Your task to perform on an android device: change the clock display to digital Image 0: 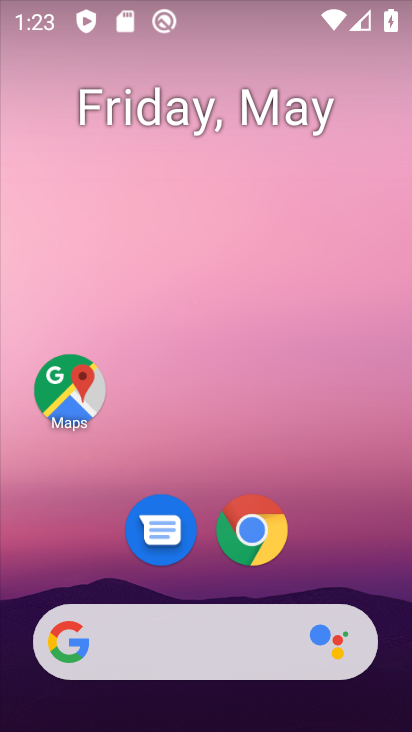
Step 0: drag from (318, 557) to (188, 5)
Your task to perform on an android device: change the clock display to digital Image 1: 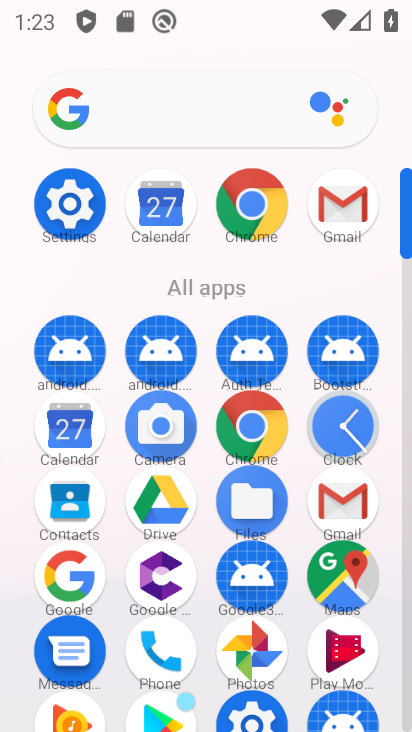
Step 1: click (336, 425)
Your task to perform on an android device: change the clock display to digital Image 2: 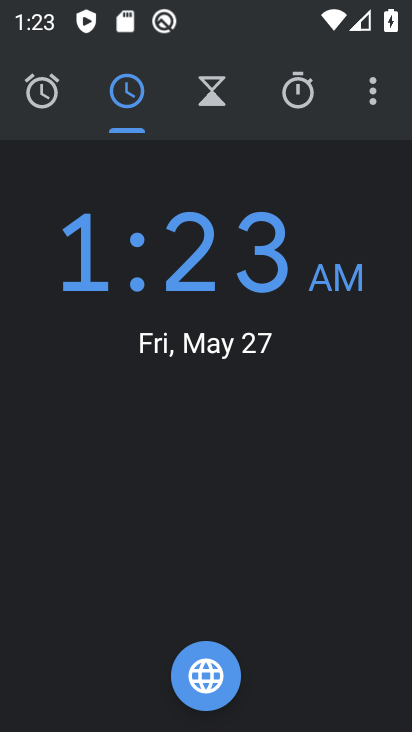
Step 2: click (361, 94)
Your task to perform on an android device: change the clock display to digital Image 3: 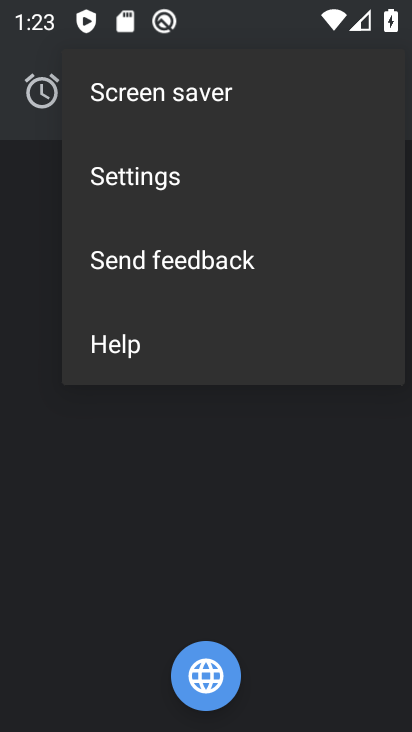
Step 3: click (196, 188)
Your task to perform on an android device: change the clock display to digital Image 4: 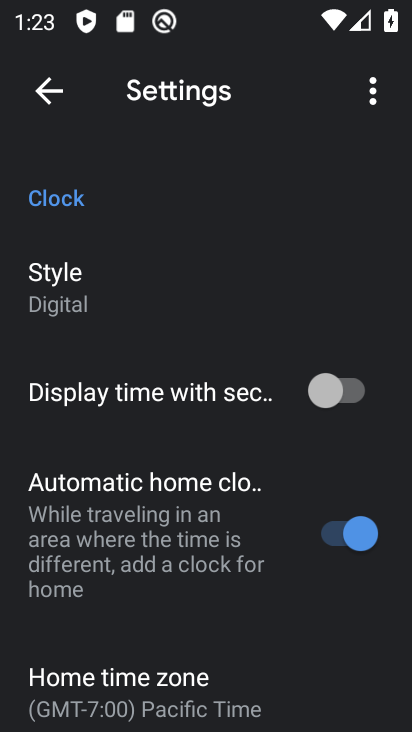
Step 4: click (134, 293)
Your task to perform on an android device: change the clock display to digital Image 5: 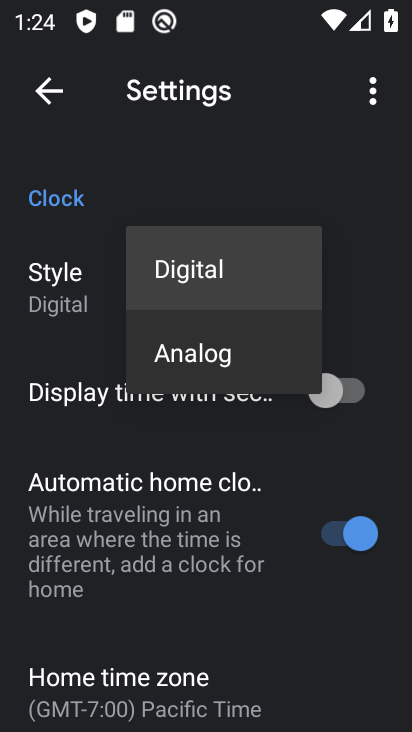
Step 5: click (204, 266)
Your task to perform on an android device: change the clock display to digital Image 6: 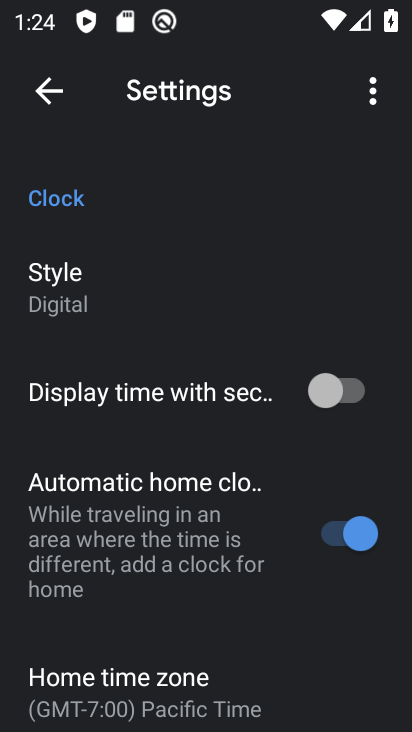
Step 6: task complete